Your task to perform on an android device: check the backup settings in the google photos Image 0: 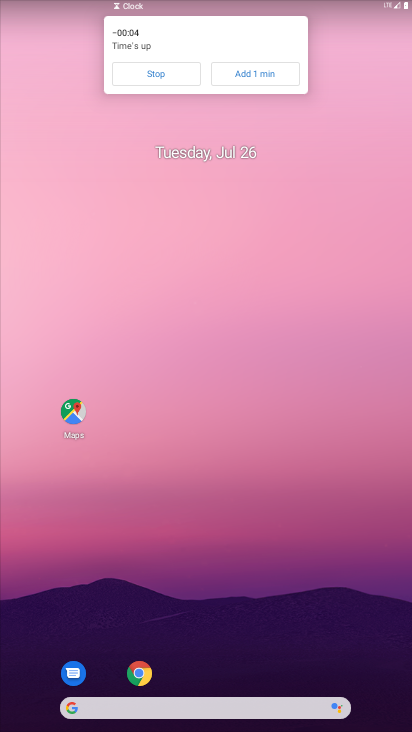
Step 0: click (152, 64)
Your task to perform on an android device: check the backup settings in the google photos Image 1: 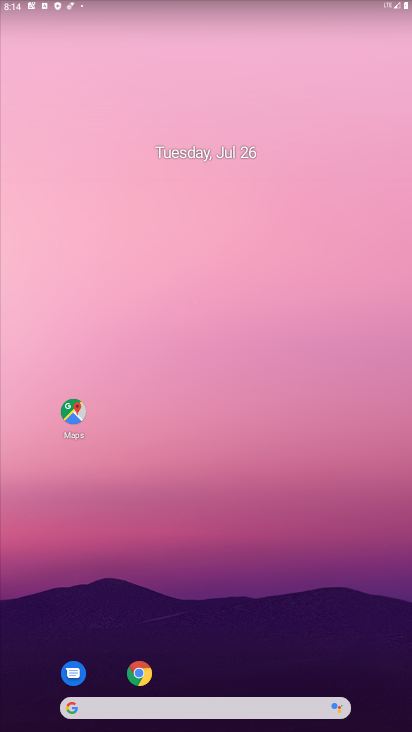
Step 1: drag from (226, 664) to (235, 216)
Your task to perform on an android device: check the backup settings in the google photos Image 2: 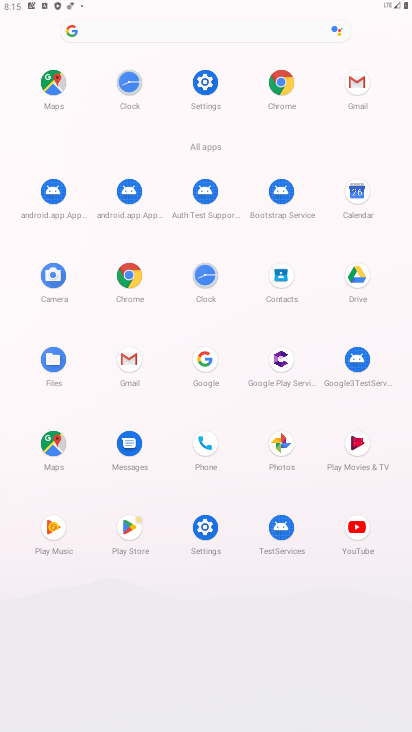
Step 2: click (271, 446)
Your task to perform on an android device: check the backup settings in the google photos Image 3: 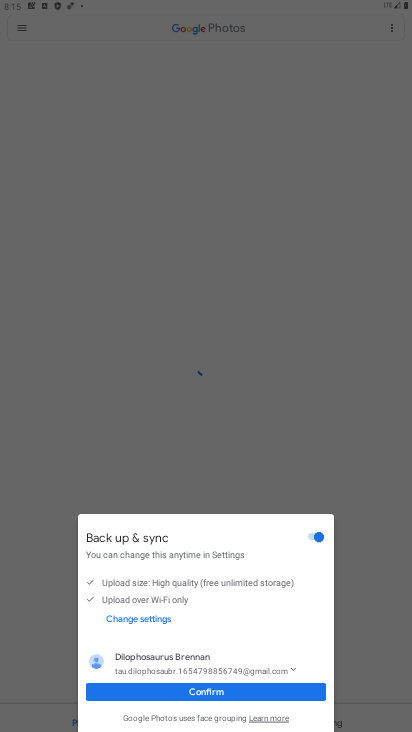
Step 3: click (186, 694)
Your task to perform on an android device: check the backup settings in the google photos Image 4: 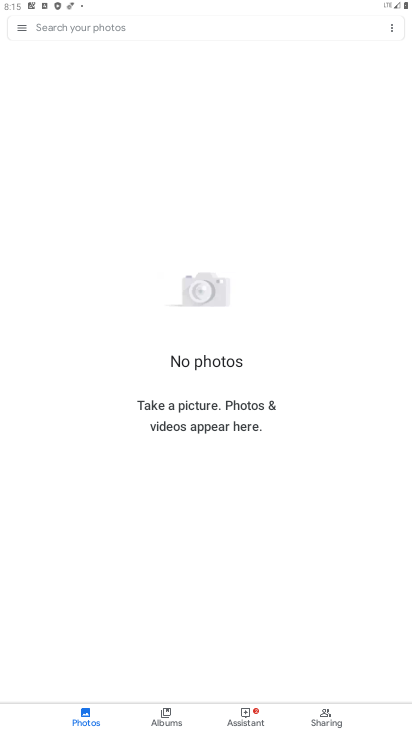
Step 4: click (19, 37)
Your task to perform on an android device: check the backup settings in the google photos Image 5: 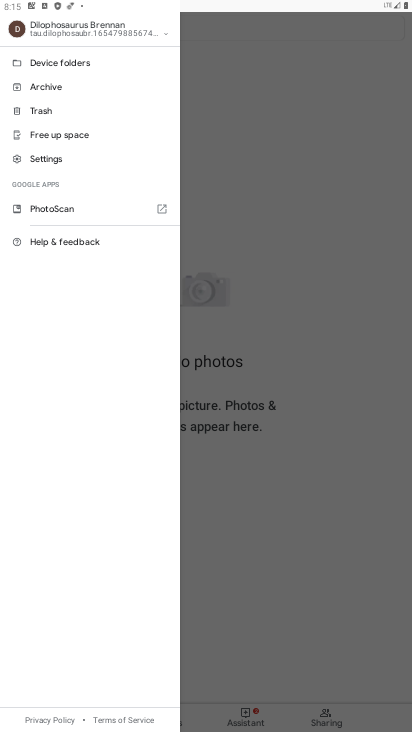
Step 5: click (42, 160)
Your task to perform on an android device: check the backup settings in the google photos Image 6: 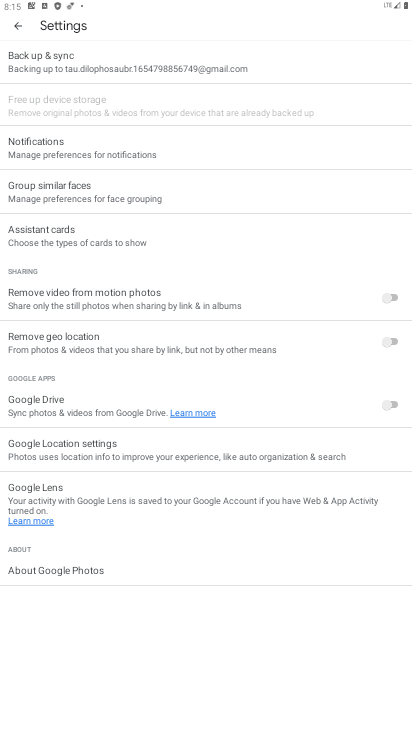
Step 6: click (94, 73)
Your task to perform on an android device: check the backup settings in the google photos Image 7: 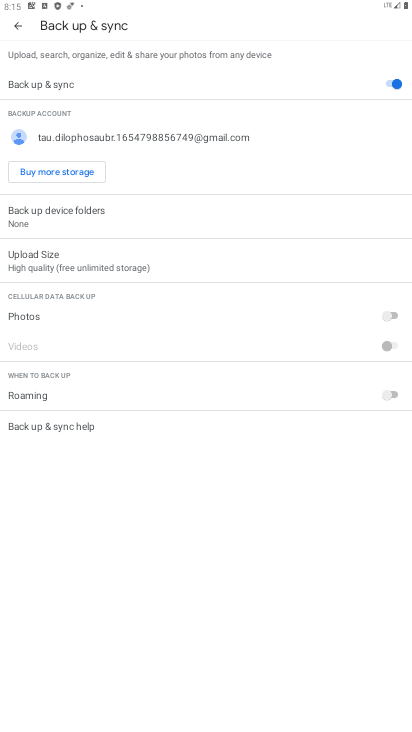
Step 7: task complete